Your task to perform on an android device: turn off notifications in google photos Image 0: 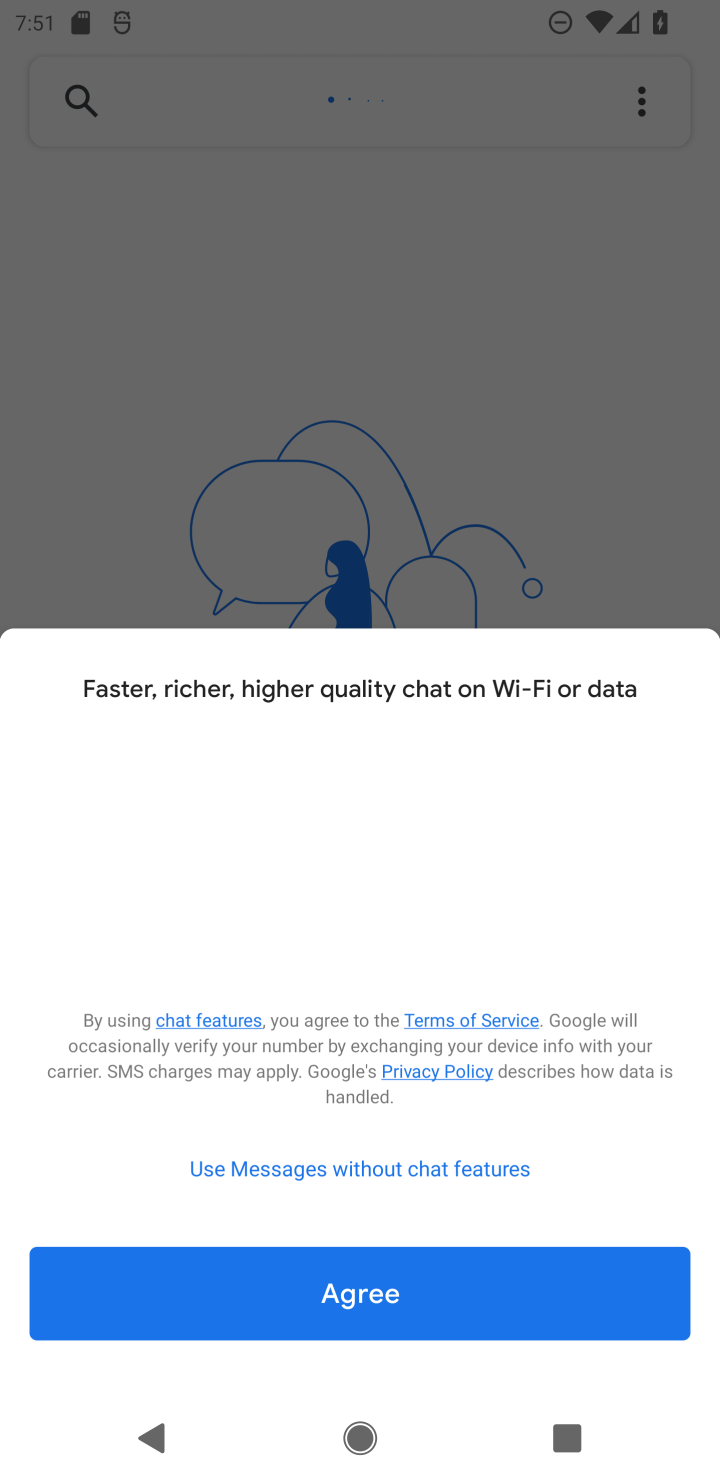
Step 0: press home button
Your task to perform on an android device: turn off notifications in google photos Image 1: 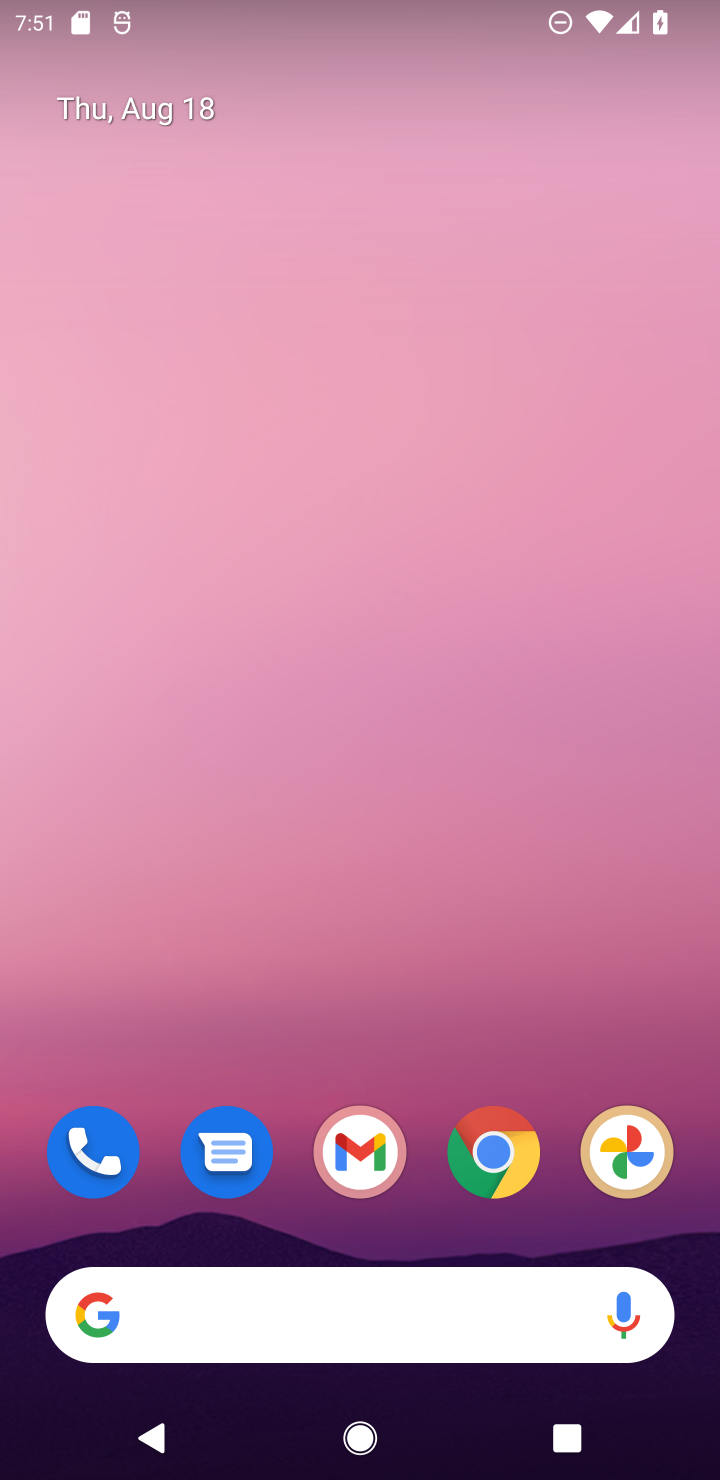
Step 1: drag from (412, 1075) to (350, 170)
Your task to perform on an android device: turn off notifications in google photos Image 2: 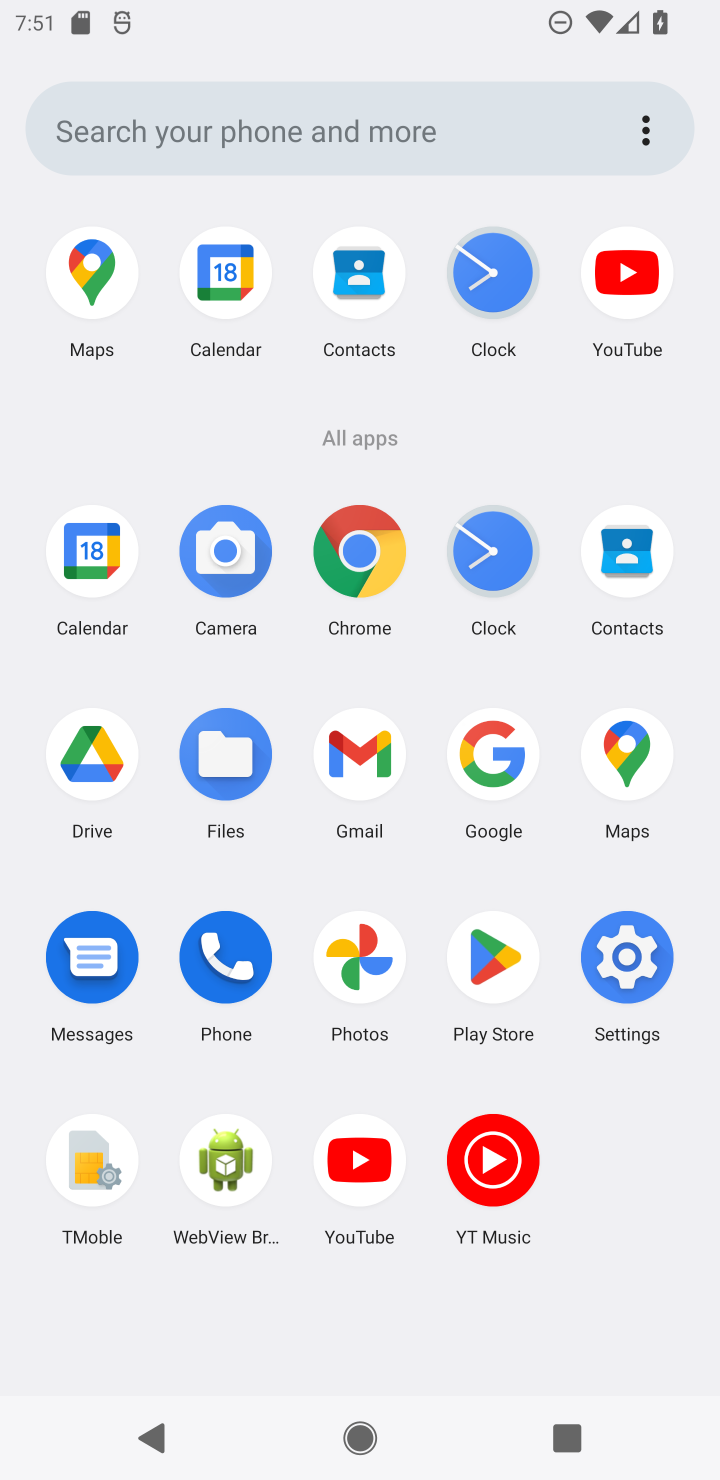
Step 2: click (388, 937)
Your task to perform on an android device: turn off notifications in google photos Image 3: 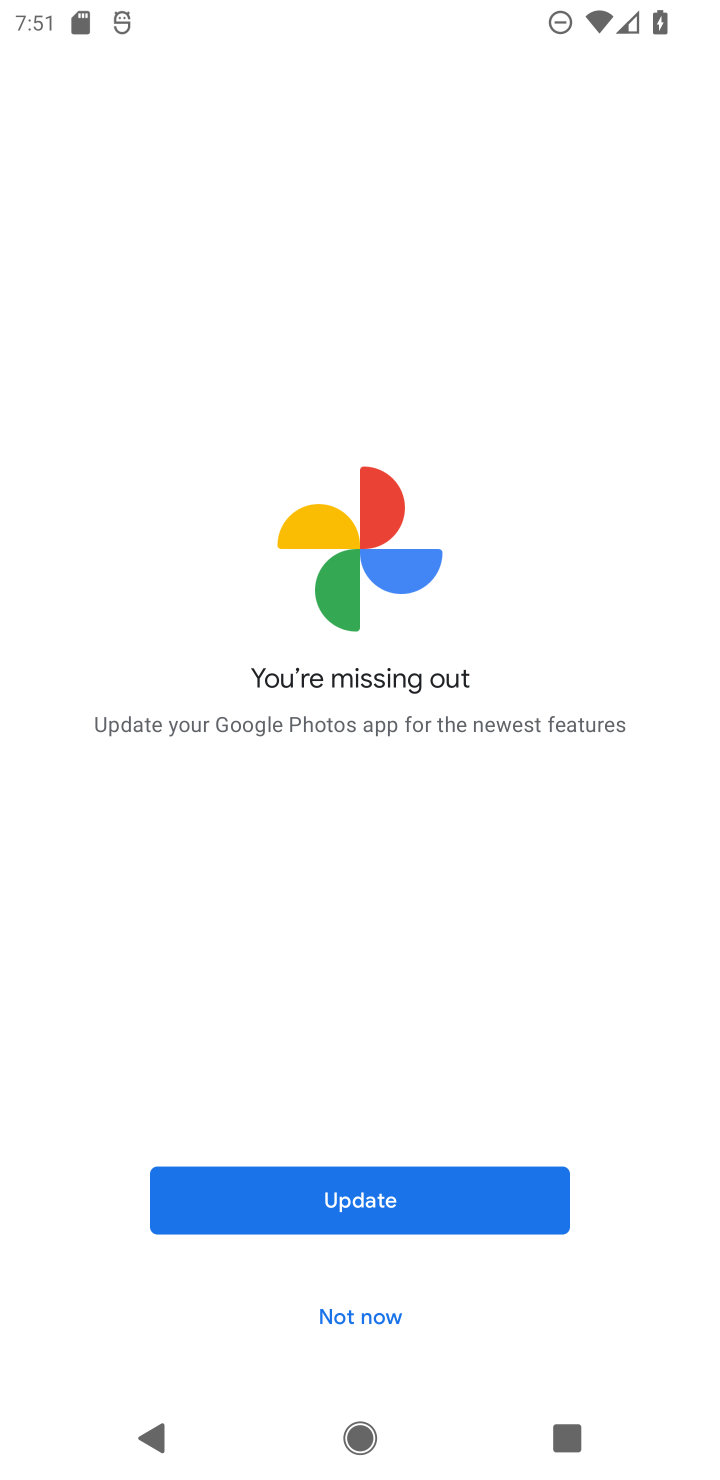
Step 3: click (389, 1192)
Your task to perform on an android device: turn off notifications in google photos Image 4: 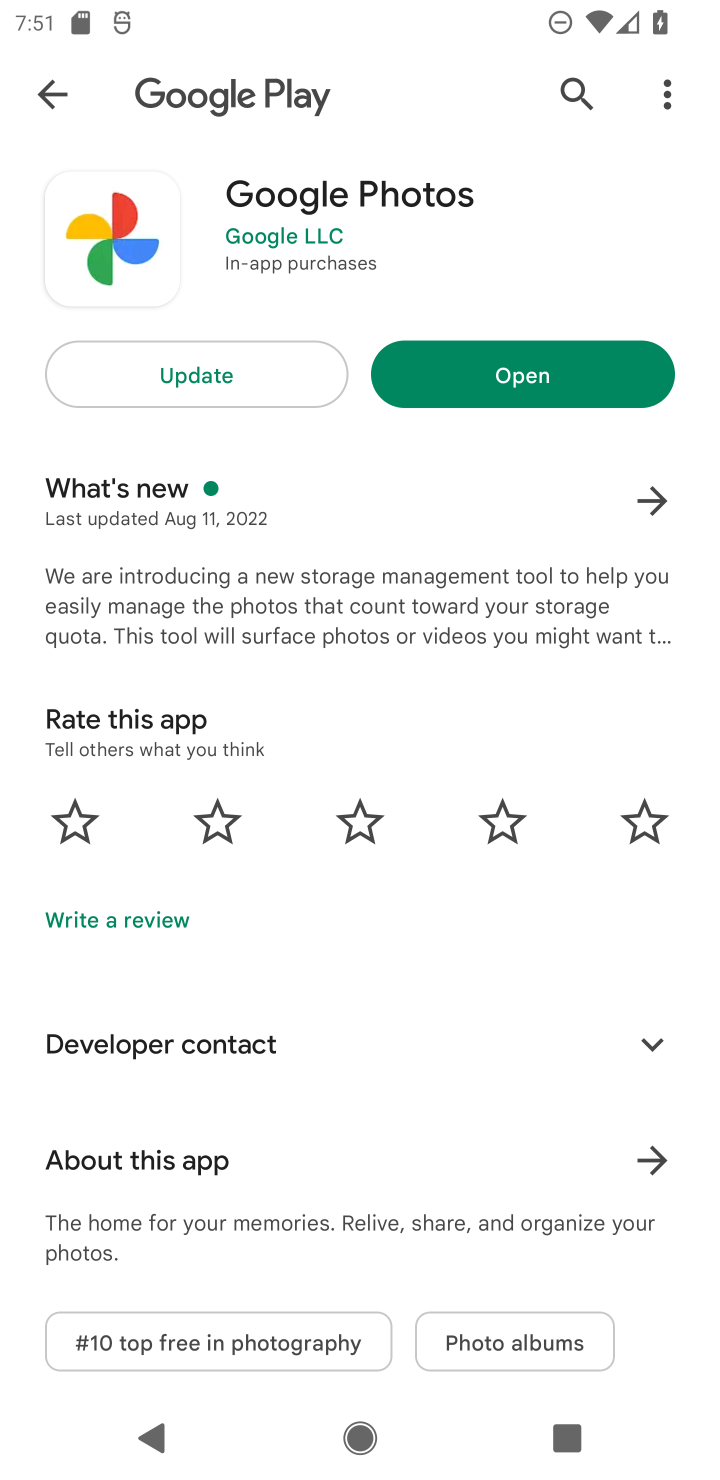
Step 4: click (258, 377)
Your task to perform on an android device: turn off notifications in google photos Image 5: 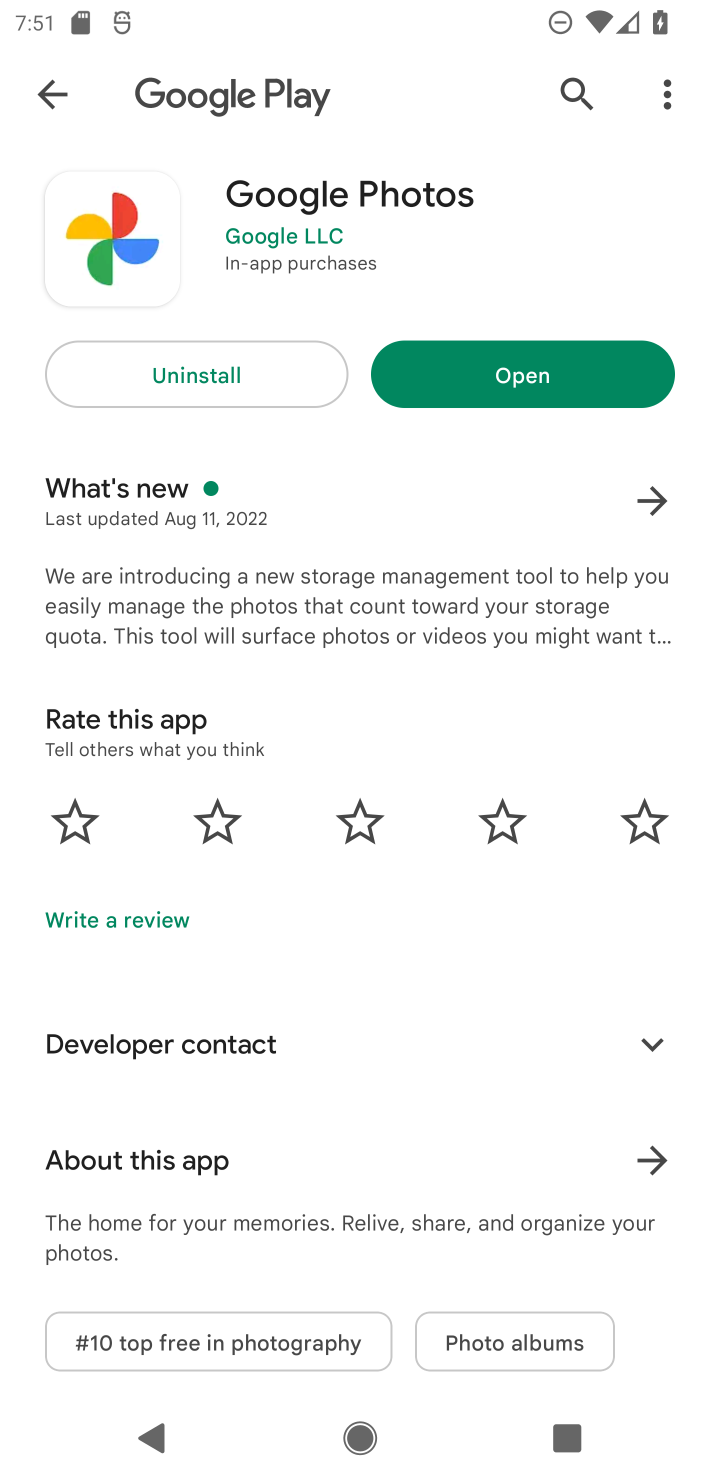
Step 5: click (510, 386)
Your task to perform on an android device: turn off notifications in google photos Image 6: 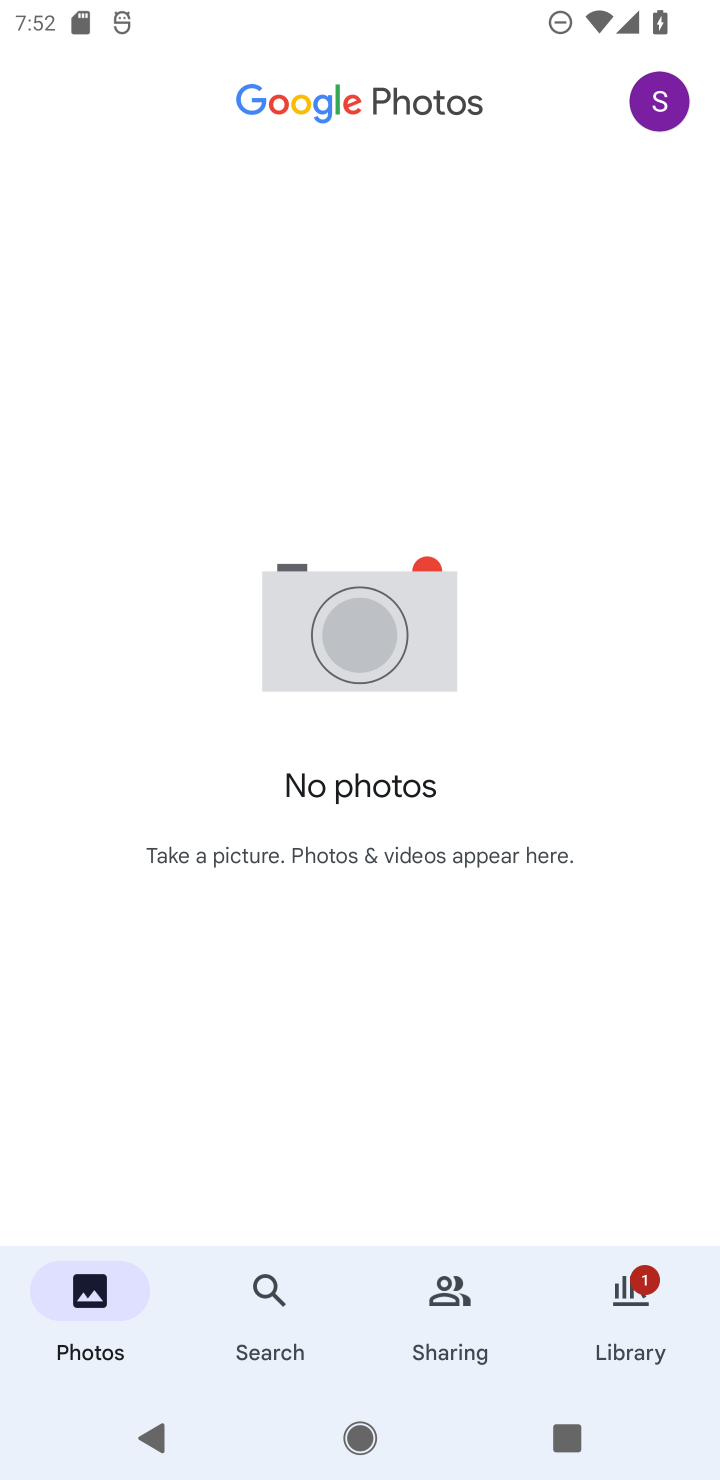
Step 6: click (662, 95)
Your task to perform on an android device: turn off notifications in google photos Image 7: 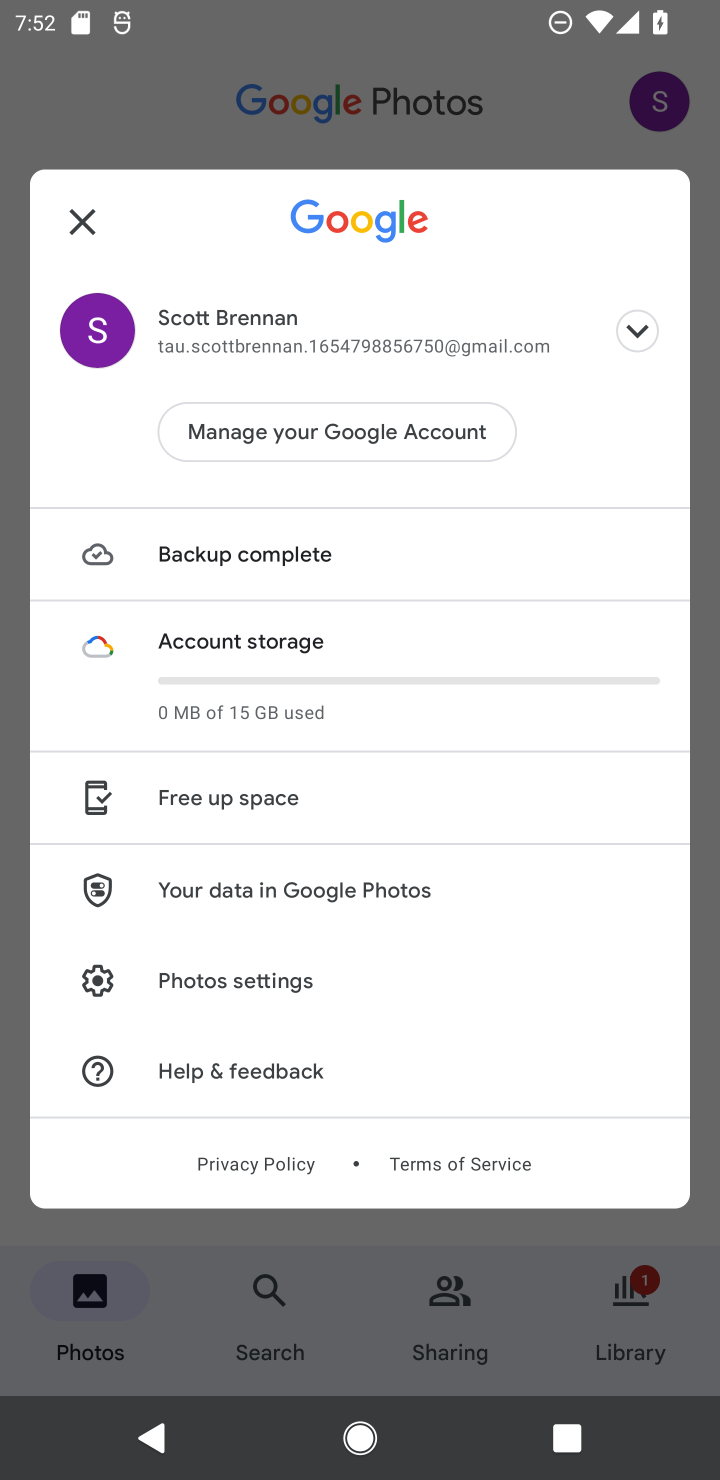
Step 7: click (284, 973)
Your task to perform on an android device: turn off notifications in google photos Image 8: 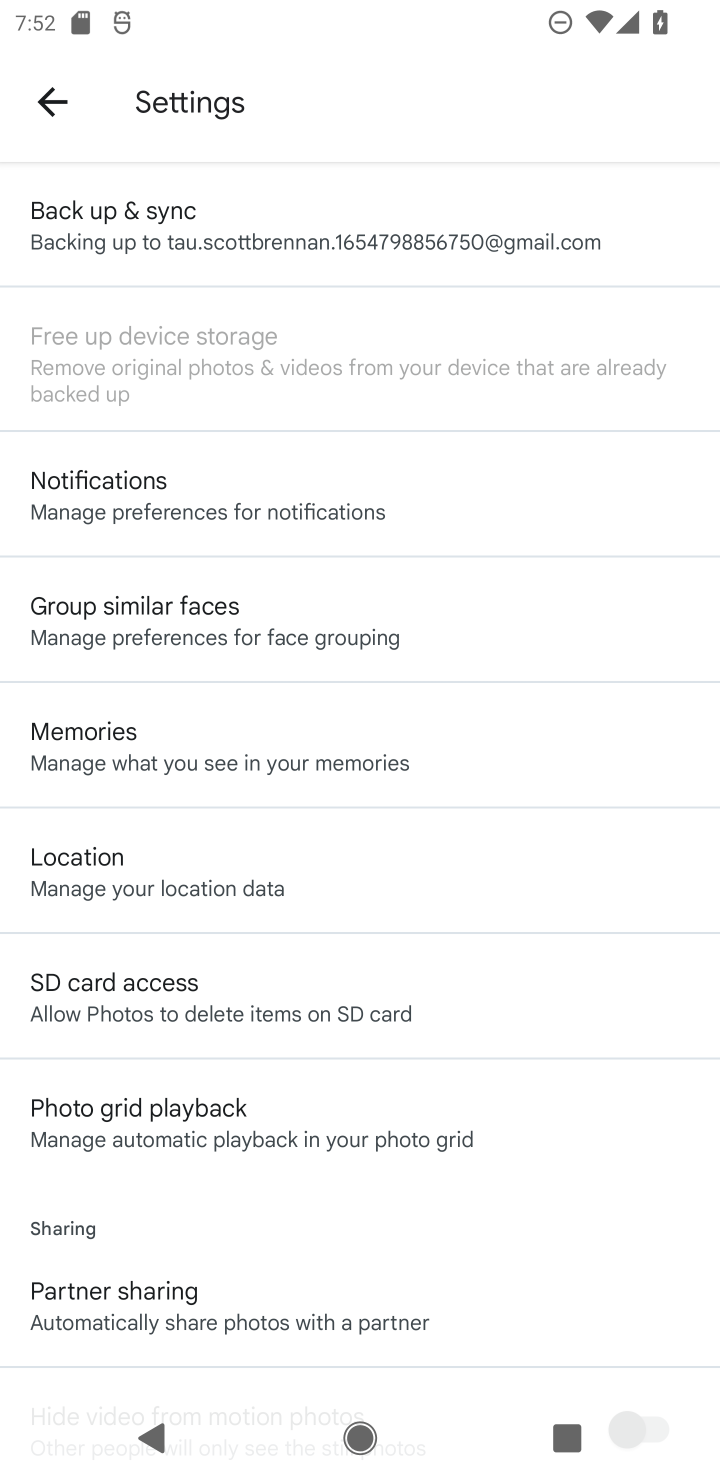
Step 8: click (162, 495)
Your task to perform on an android device: turn off notifications in google photos Image 9: 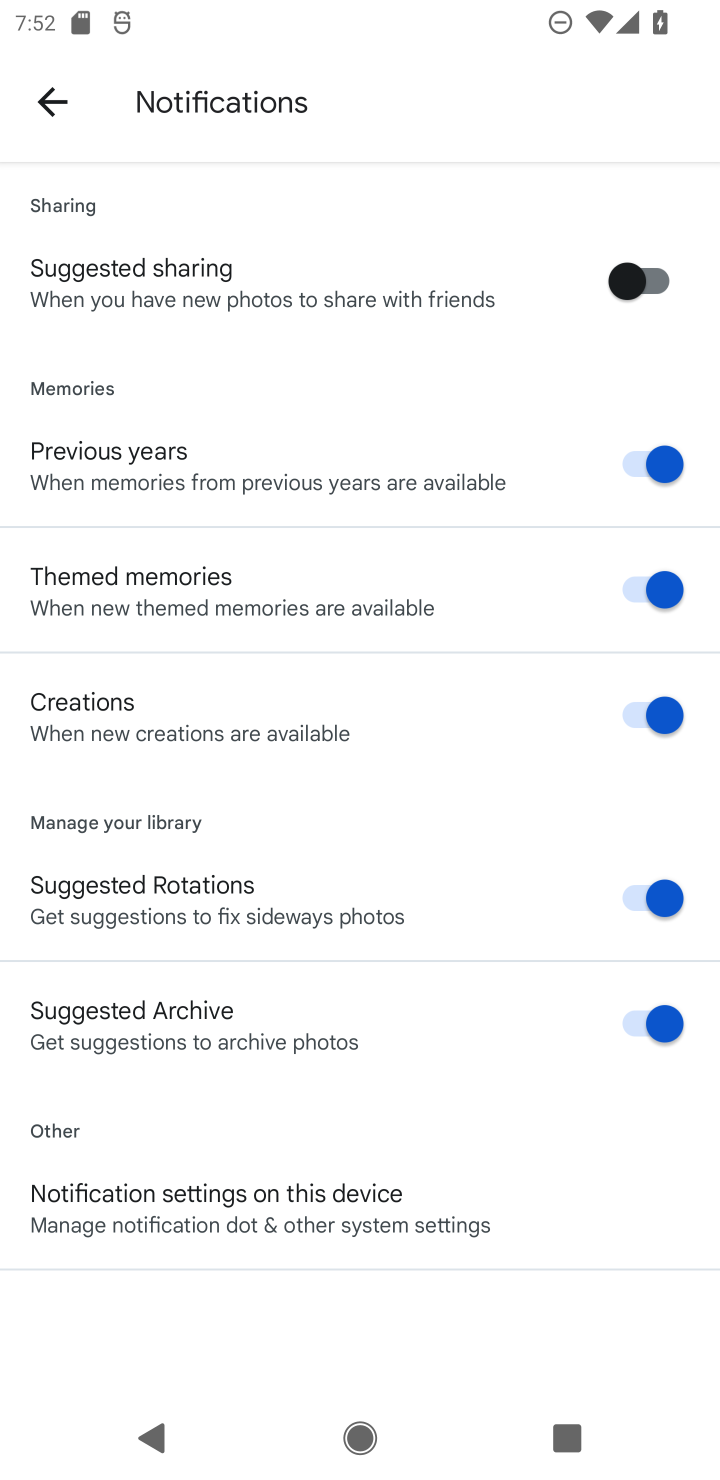
Step 9: drag from (265, 1141) to (289, 532)
Your task to perform on an android device: turn off notifications in google photos Image 10: 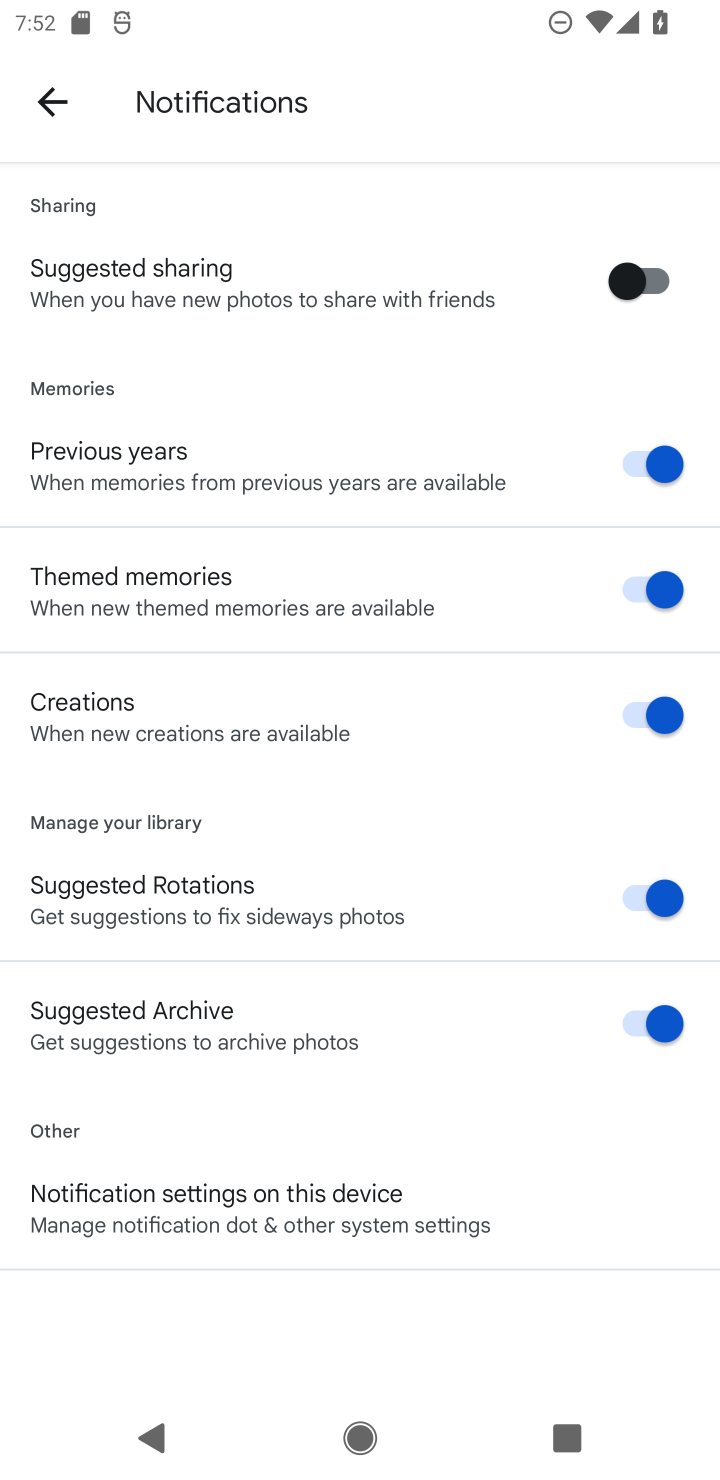
Step 10: click (230, 1219)
Your task to perform on an android device: turn off notifications in google photos Image 11: 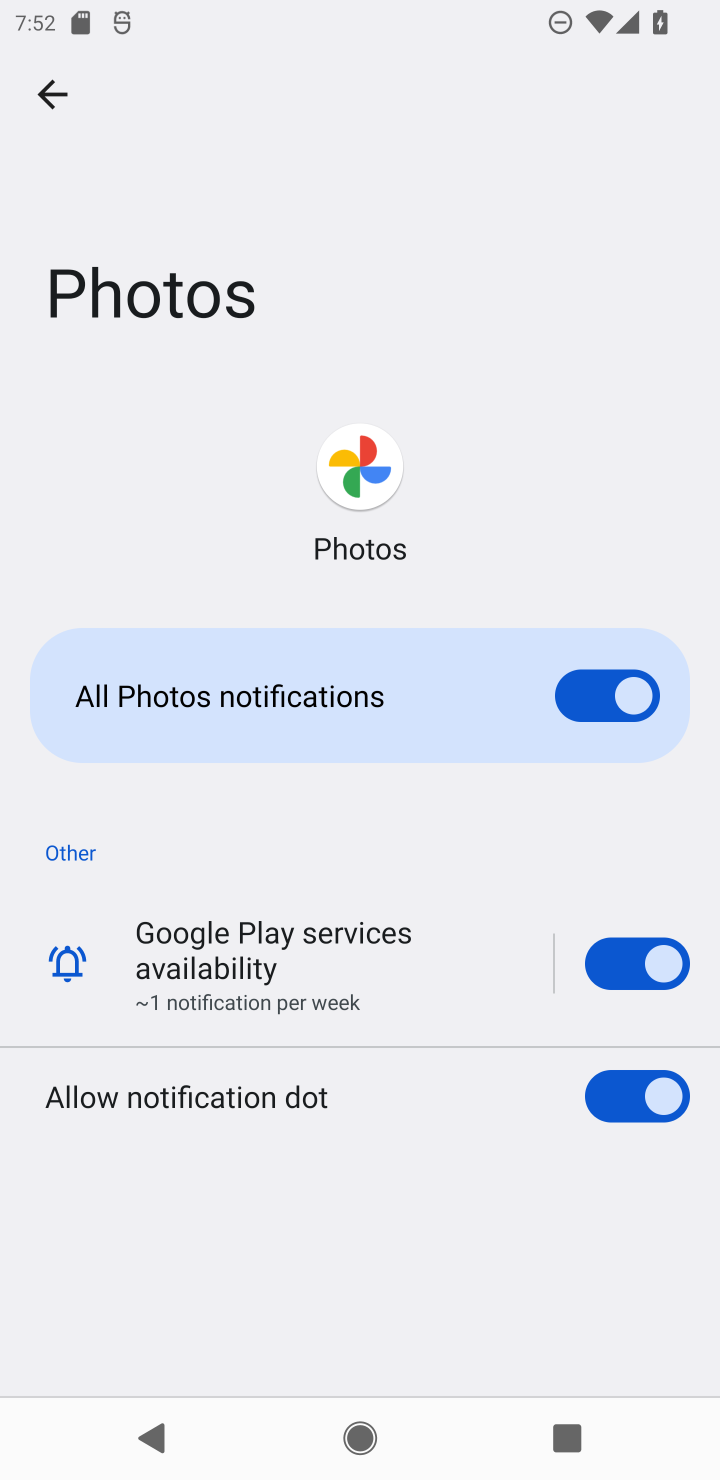
Step 11: click (631, 670)
Your task to perform on an android device: turn off notifications in google photos Image 12: 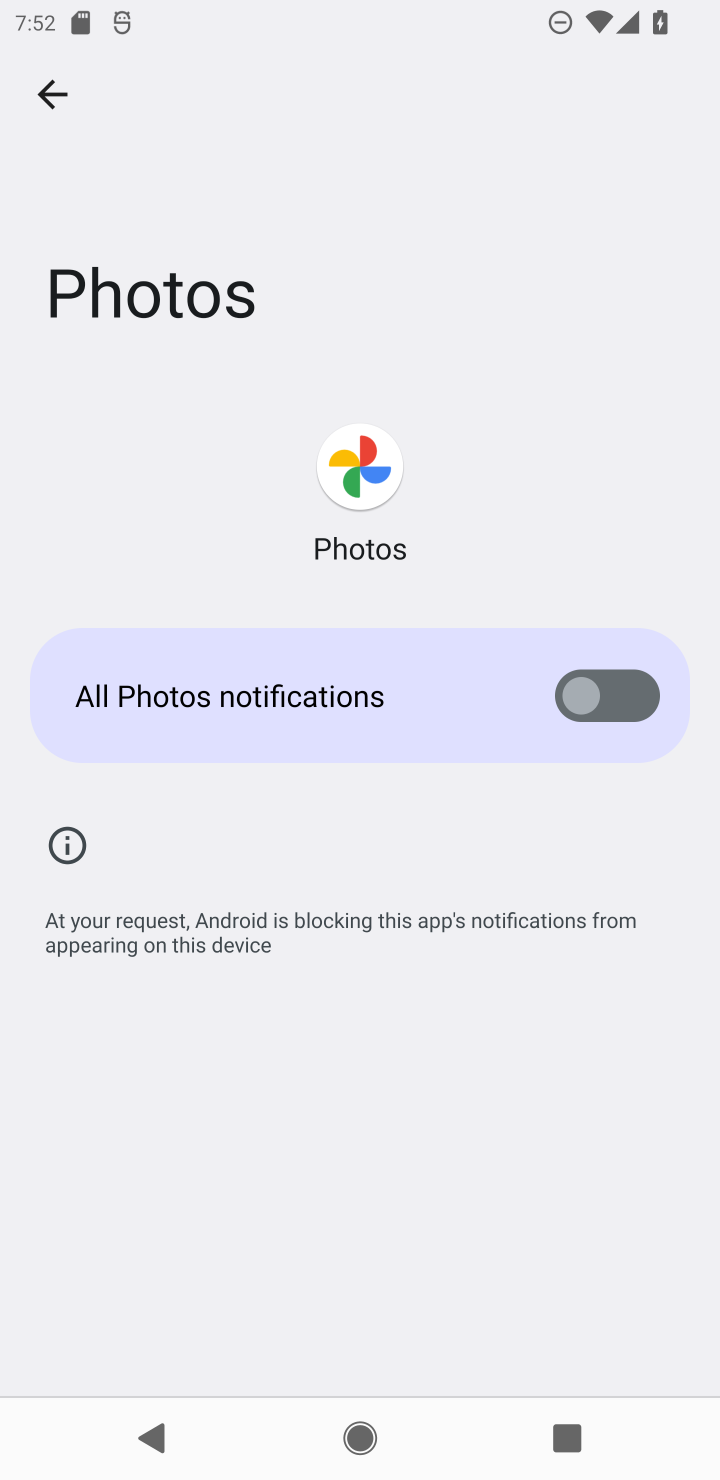
Step 12: task complete